Your task to perform on an android device: Go to network settings Image 0: 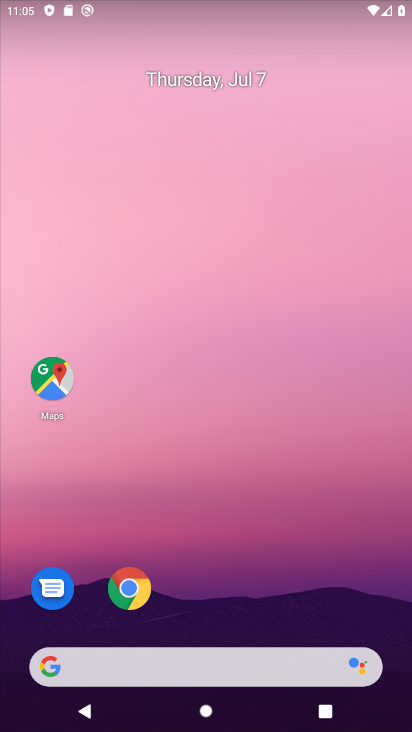
Step 0: drag from (209, 583) to (206, 293)
Your task to perform on an android device: Go to network settings Image 1: 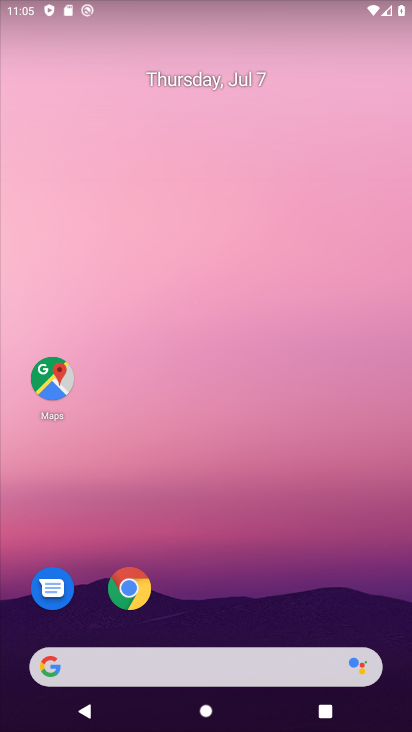
Step 1: click (284, 117)
Your task to perform on an android device: Go to network settings Image 2: 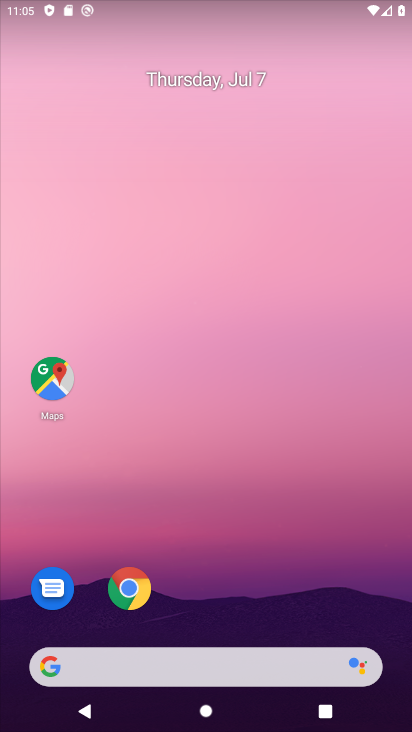
Step 2: drag from (227, 179) to (196, 27)
Your task to perform on an android device: Go to network settings Image 3: 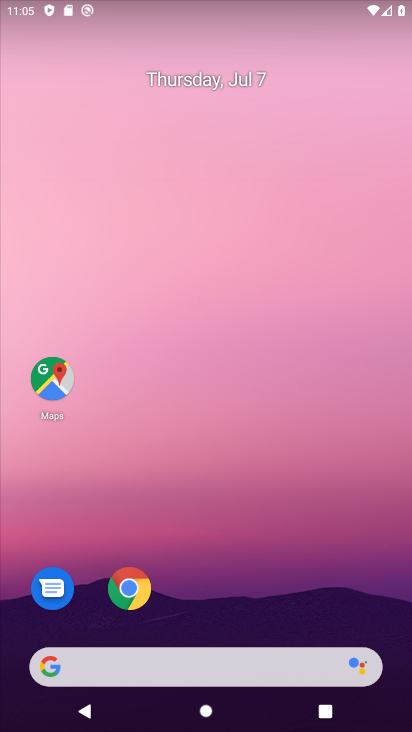
Step 3: drag from (276, 583) to (257, 31)
Your task to perform on an android device: Go to network settings Image 4: 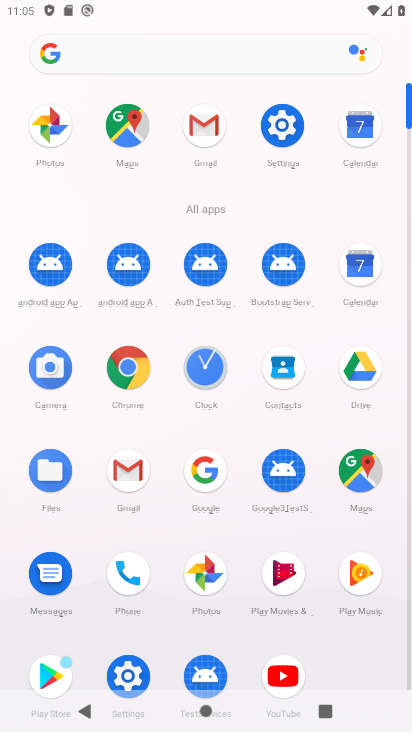
Step 4: click (279, 122)
Your task to perform on an android device: Go to network settings Image 5: 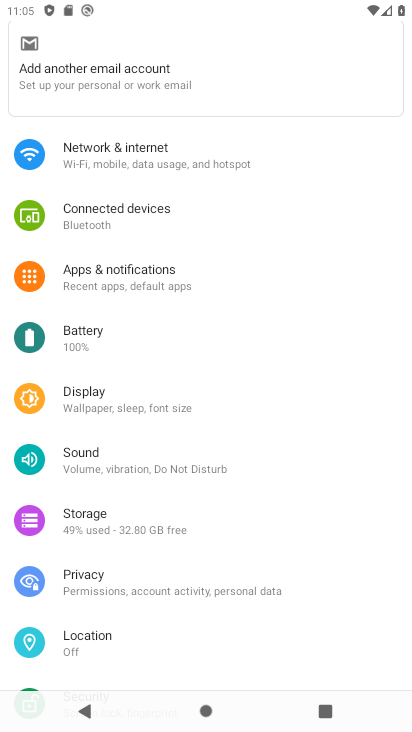
Step 5: click (211, 147)
Your task to perform on an android device: Go to network settings Image 6: 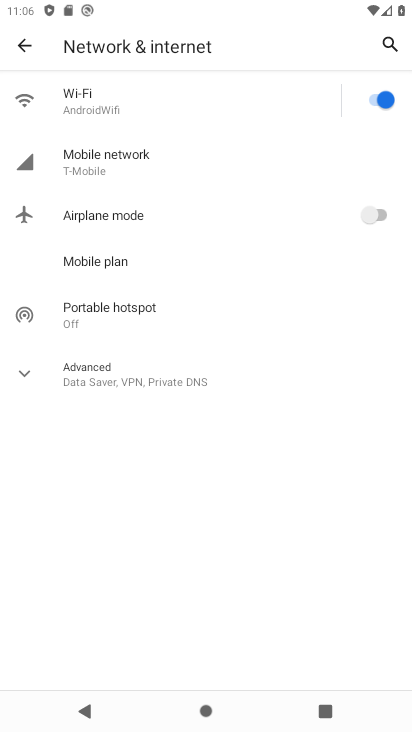
Step 6: click (184, 159)
Your task to perform on an android device: Go to network settings Image 7: 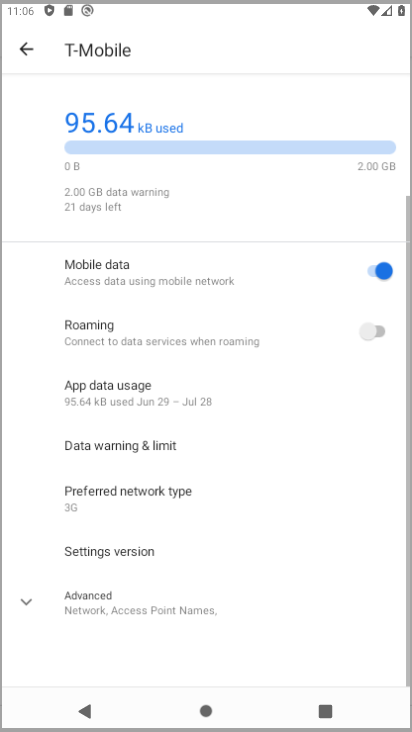
Step 7: task complete